Your task to perform on an android device: Open Google Chrome and click the shortcut for Amazon.com Image 0: 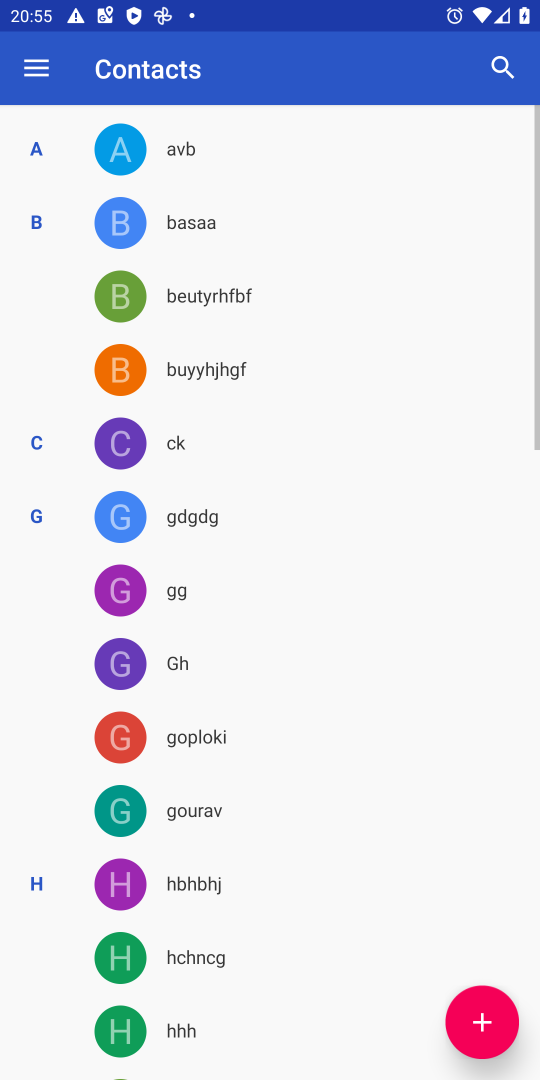
Step 0: press home button
Your task to perform on an android device: Open Google Chrome and click the shortcut for Amazon.com Image 1: 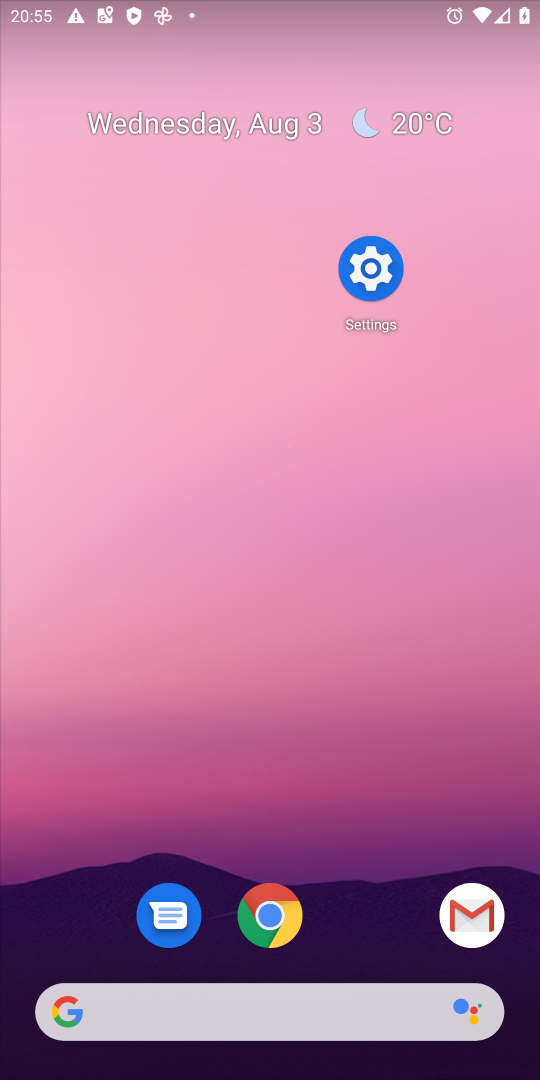
Step 1: drag from (354, 705) to (318, 185)
Your task to perform on an android device: Open Google Chrome and click the shortcut for Amazon.com Image 2: 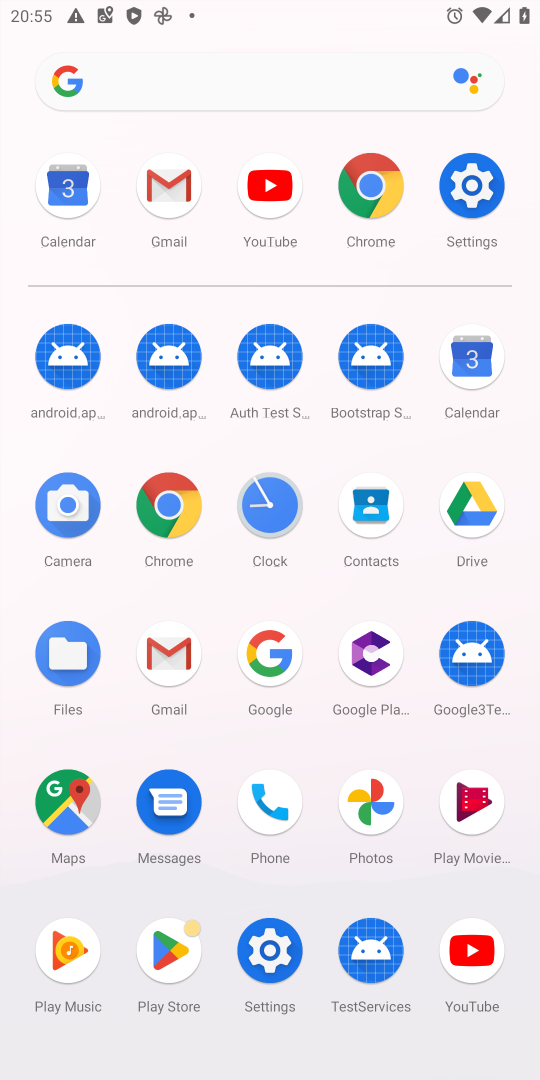
Step 2: click (378, 174)
Your task to perform on an android device: Open Google Chrome and click the shortcut for Amazon.com Image 3: 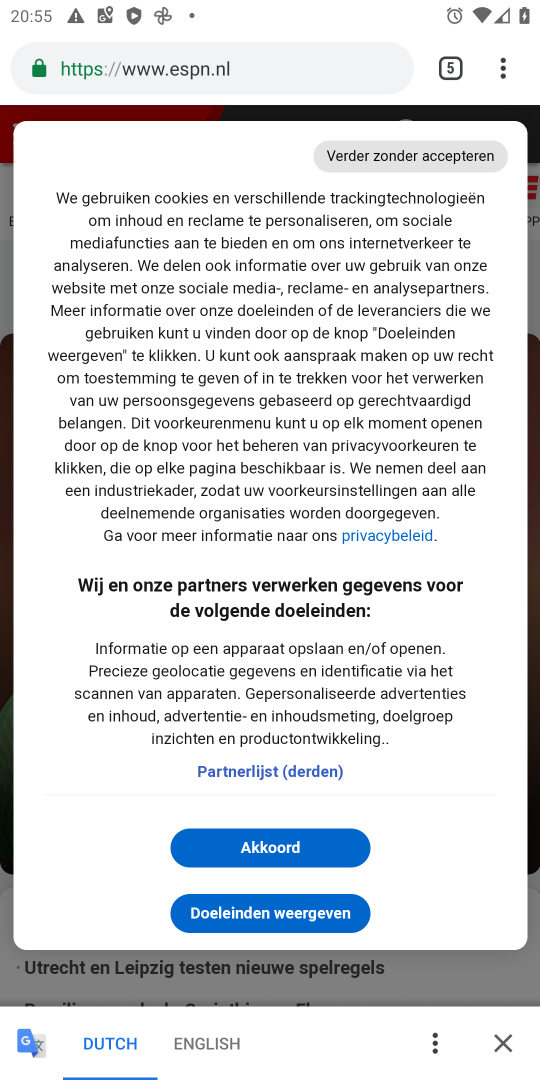
Step 3: click (310, 851)
Your task to perform on an android device: Open Google Chrome and click the shortcut for Amazon.com Image 4: 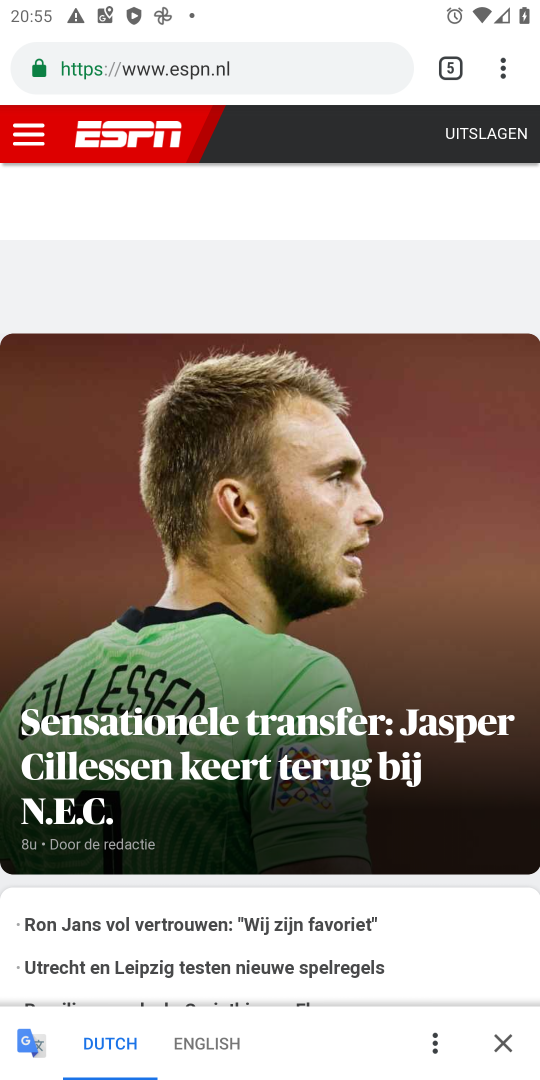
Step 4: click (511, 84)
Your task to perform on an android device: Open Google Chrome and click the shortcut for Amazon.com Image 5: 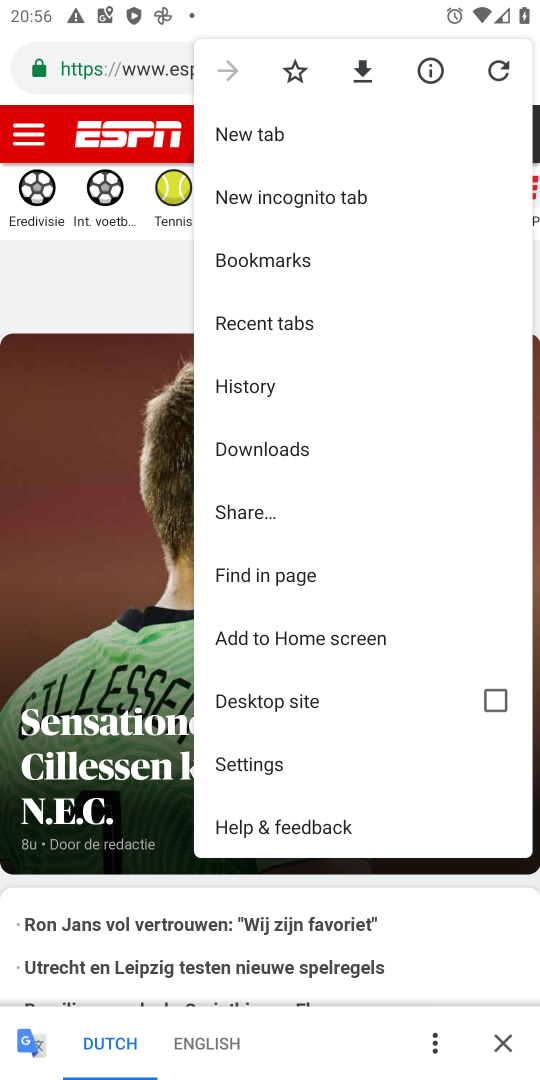
Step 5: click (305, 638)
Your task to perform on an android device: Open Google Chrome and click the shortcut for Amazon.com Image 6: 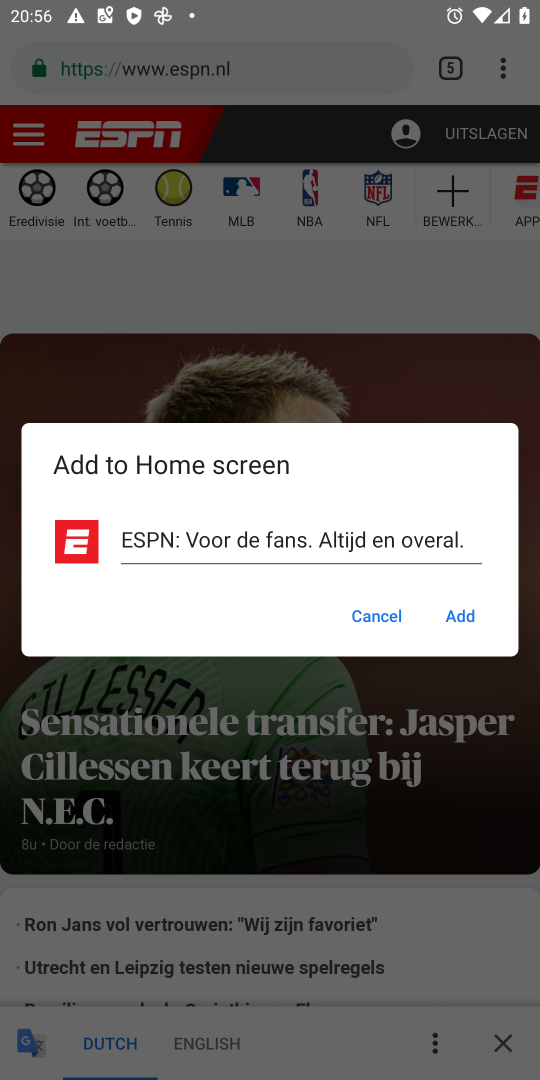
Step 6: click (369, 621)
Your task to perform on an android device: Open Google Chrome and click the shortcut for Amazon.com Image 7: 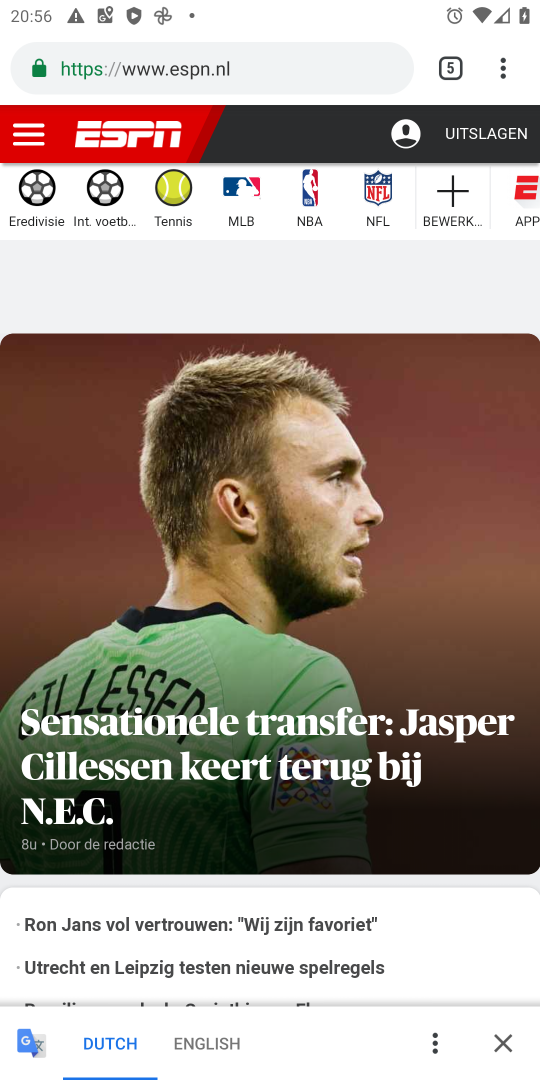
Step 7: click (451, 67)
Your task to perform on an android device: Open Google Chrome and click the shortcut for Amazon.com Image 8: 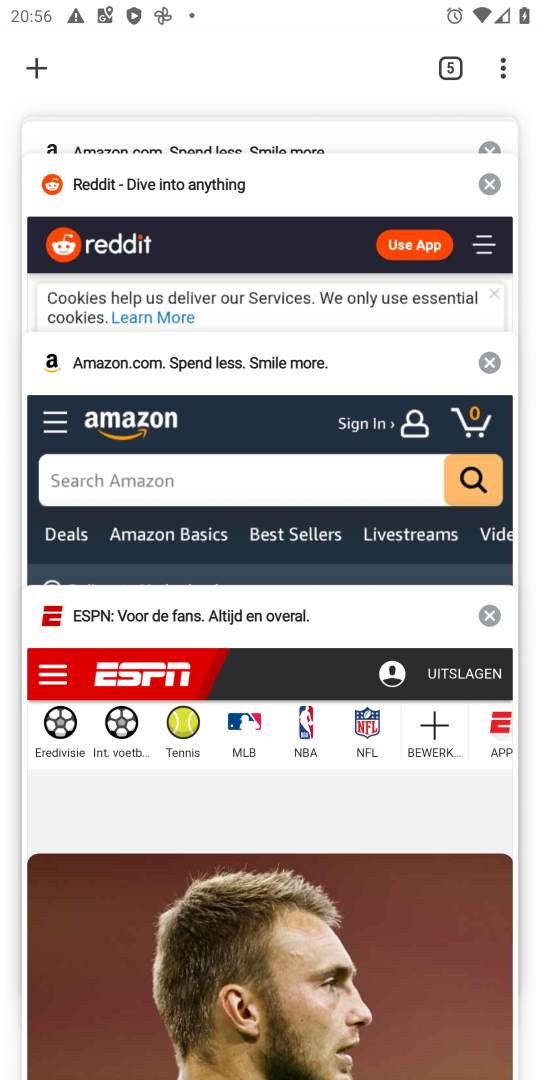
Step 8: click (220, 423)
Your task to perform on an android device: Open Google Chrome and click the shortcut for Amazon.com Image 9: 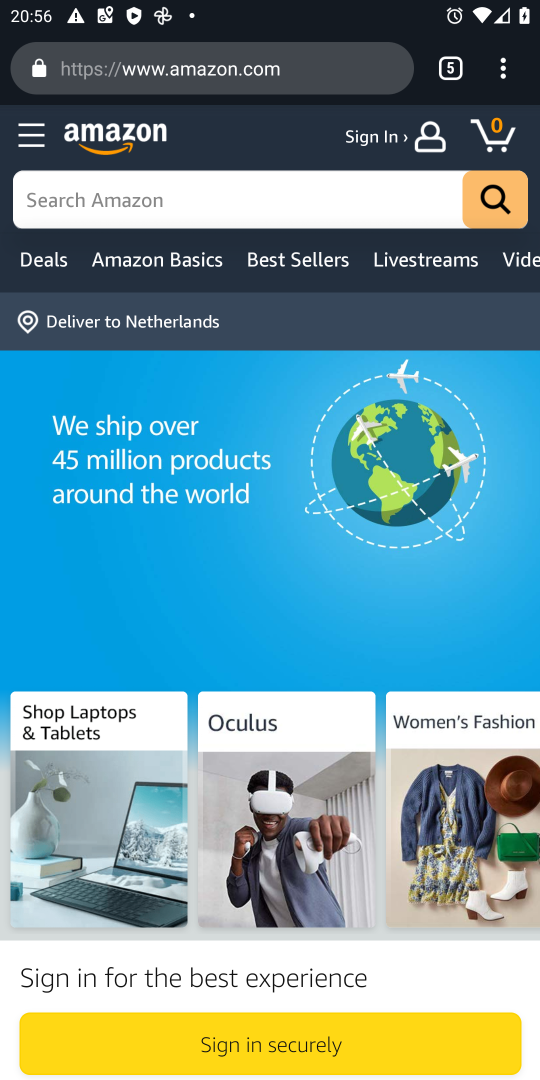
Step 9: click (503, 71)
Your task to perform on an android device: Open Google Chrome and click the shortcut for Amazon.com Image 10: 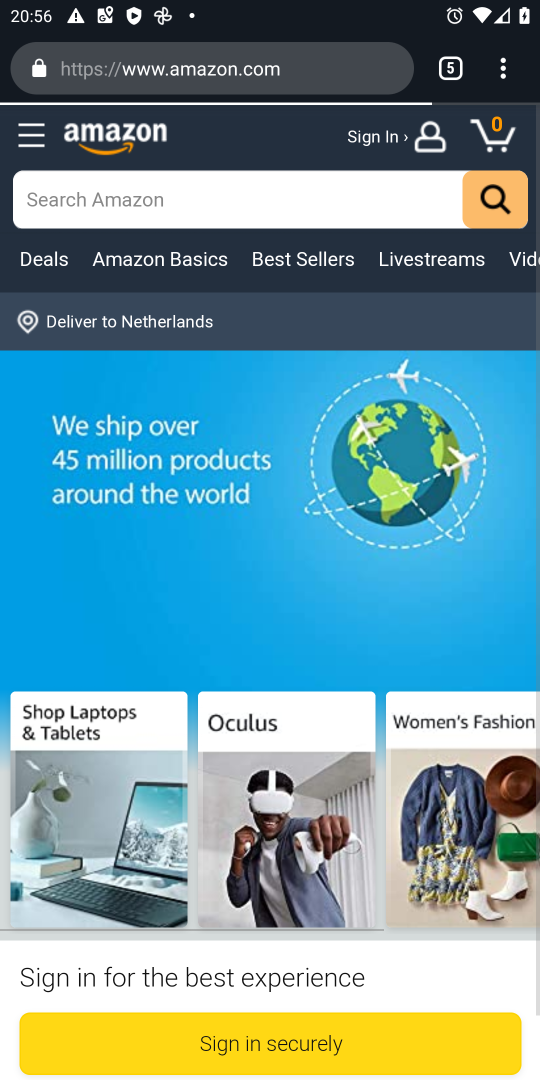
Step 10: click (496, 84)
Your task to perform on an android device: Open Google Chrome and click the shortcut for Amazon.com Image 11: 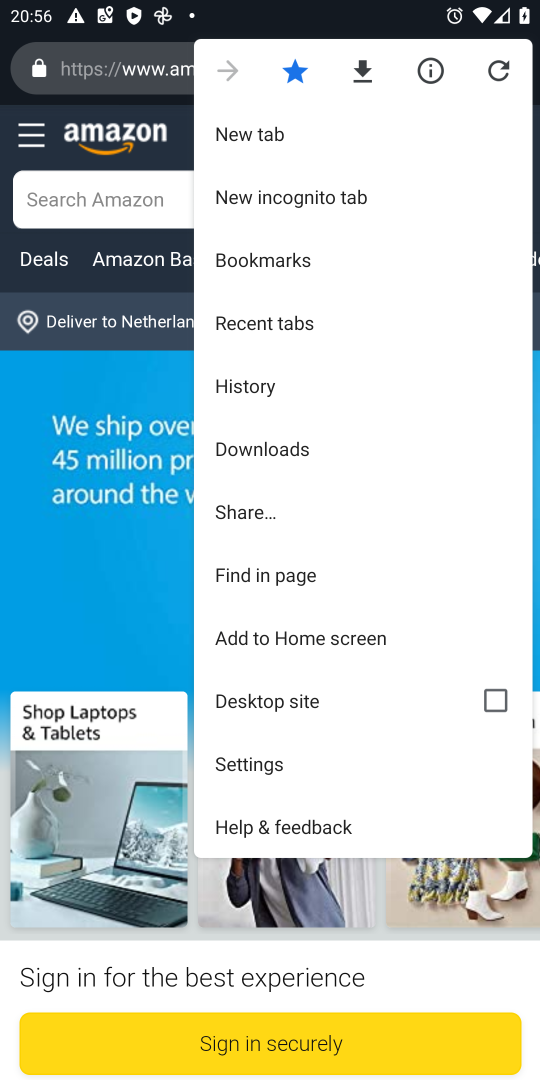
Step 11: click (294, 638)
Your task to perform on an android device: Open Google Chrome and click the shortcut for Amazon.com Image 12: 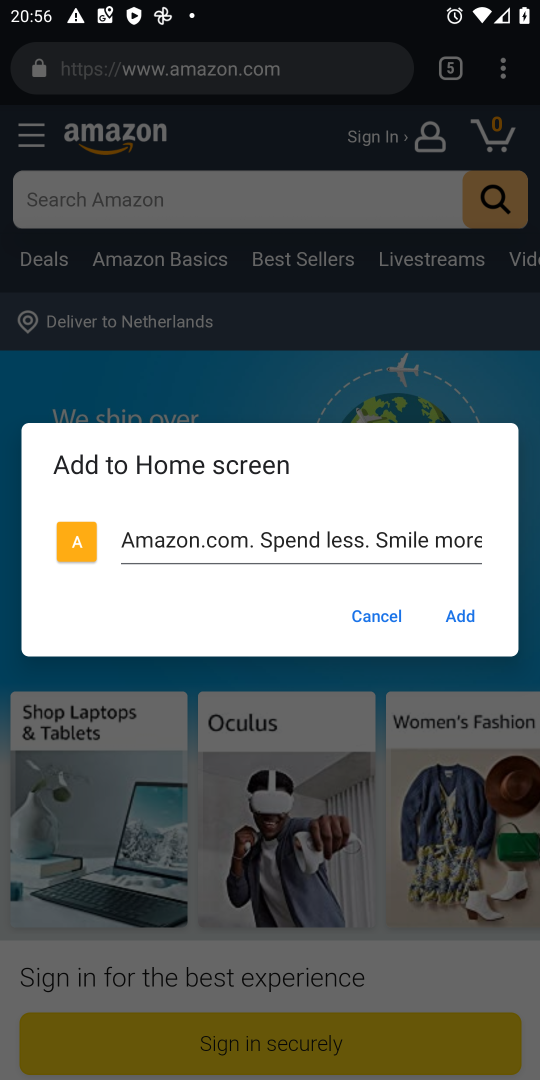
Step 12: click (458, 622)
Your task to perform on an android device: Open Google Chrome and click the shortcut for Amazon.com Image 13: 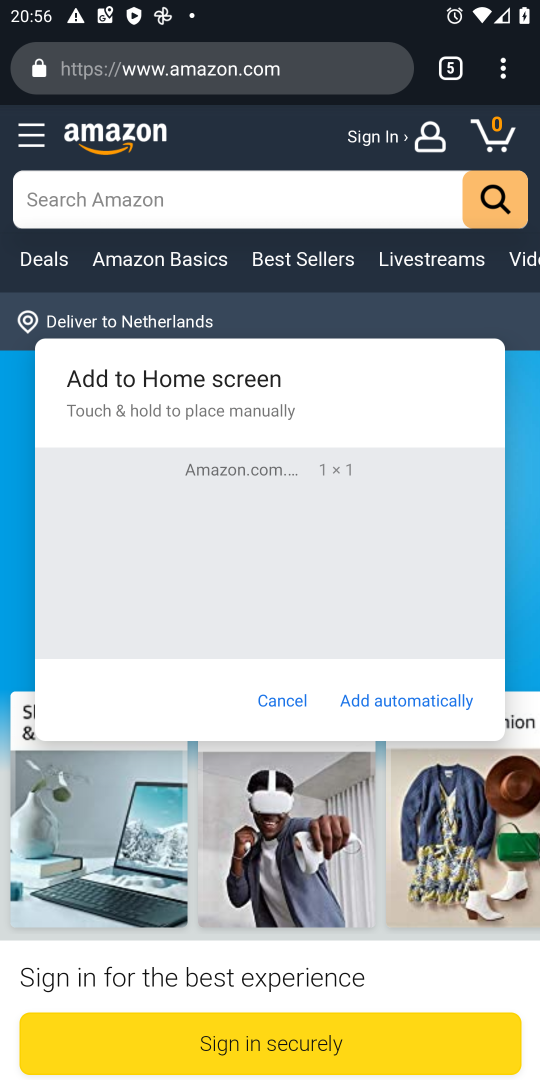
Step 13: click (458, 622)
Your task to perform on an android device: Open Google Chrome and click the shortcut for Amazon.com Image 14: 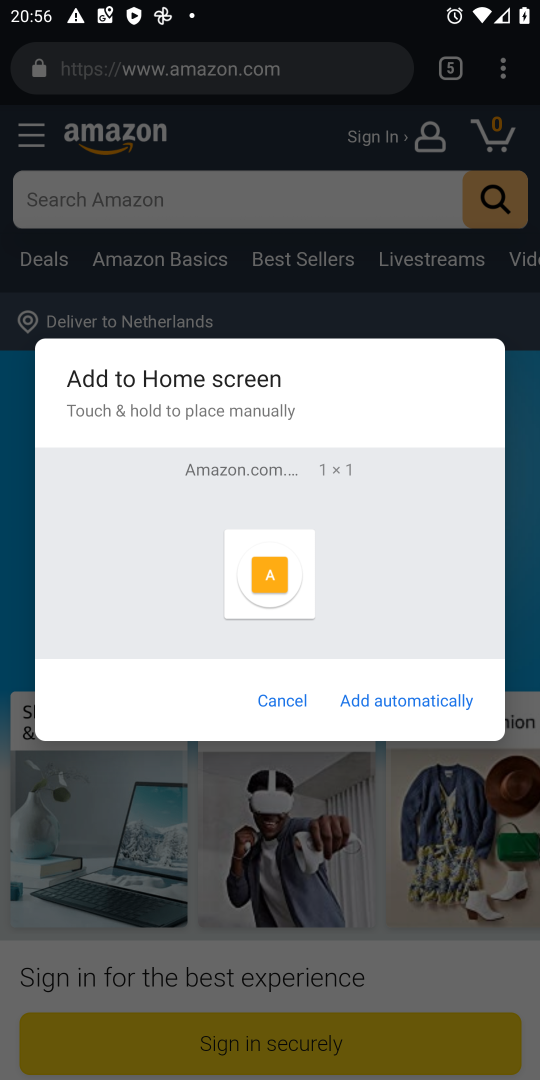
Step 14: click (438, 692)
Your task to perform on an android device: Open Google Chrome and click the shortcut for Amazon.com Image 15: 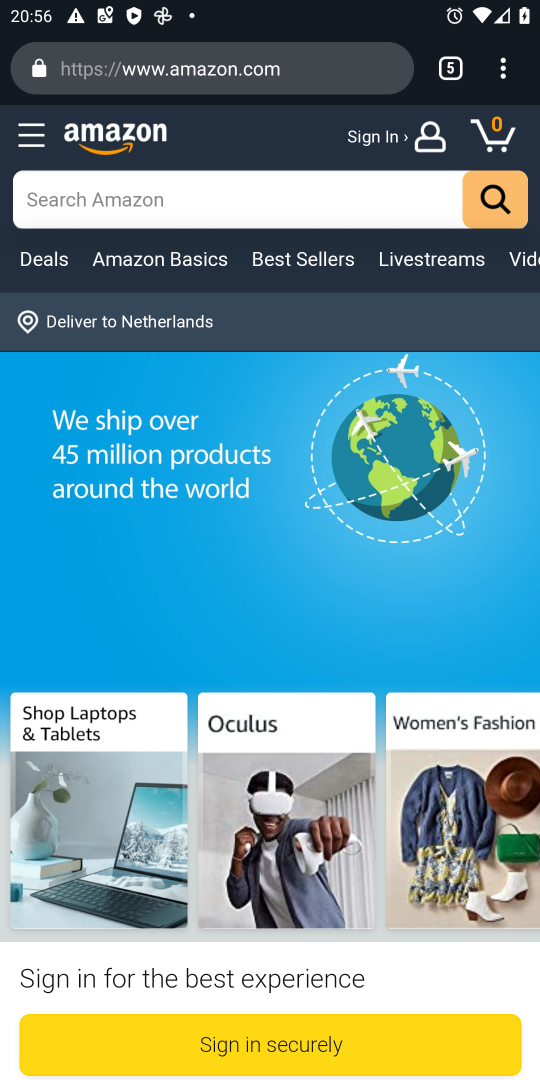
Step 15: task complete